Your task to perform on an android device: find snoozed emails in the gmail app Image 0: 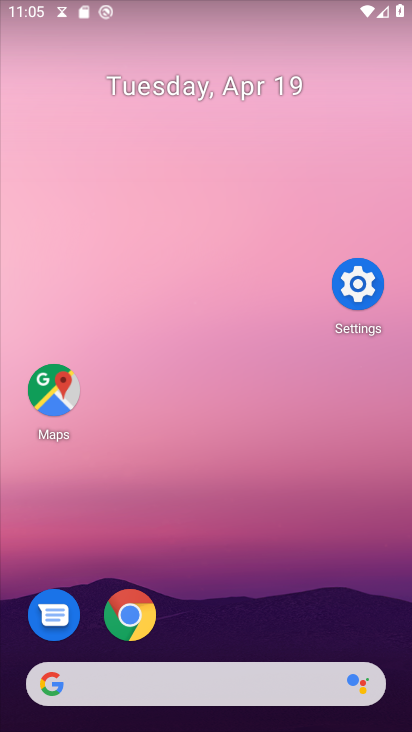
Step 0: drag from (217, 569) to (307, 156)
Your task to perform on an android device: find snoozed emails in the gmail app Image 1: 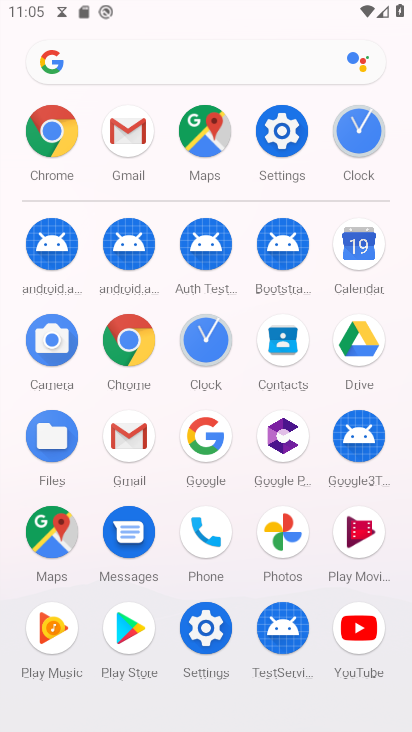
Step 1: click (121, 435)
Your task to perform on an android device: find snoozed emails in the gmail app Image 2: 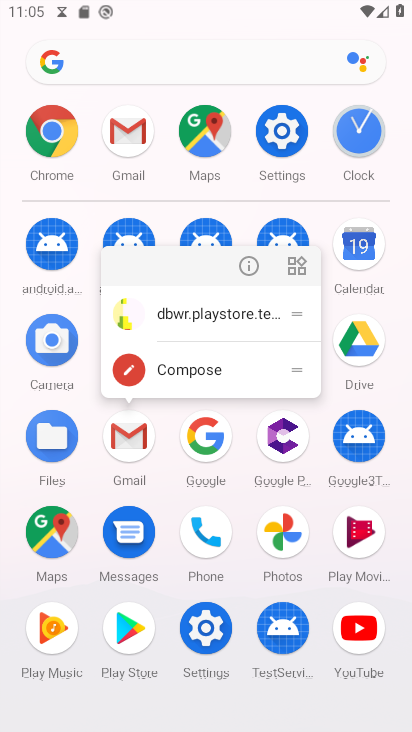
Step 2: click (241, 263)
Your task to perform on an android device: find snoozed emails in the gmail app Image 3: 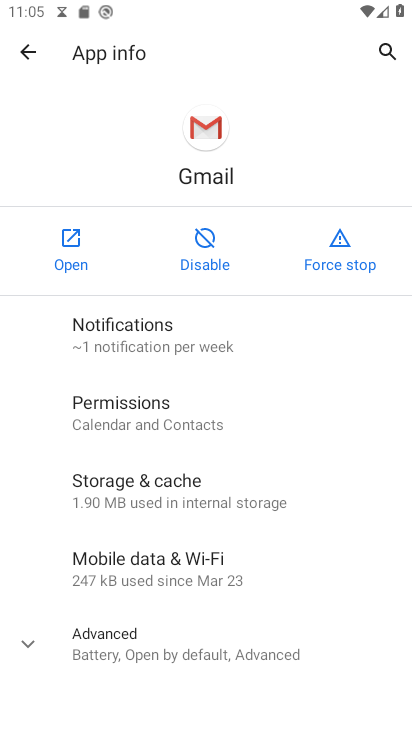
Step 3: click (76, 250)
Your task to perform on an android device: find snoozed emails in the gmail app Image 4: 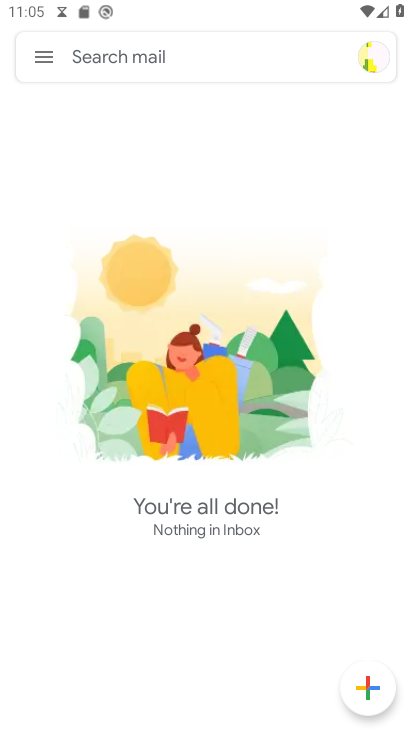
Step 4: click (41, 55)
Your task to perform on an android device: find snoozed emails in the gmail app Image 5: 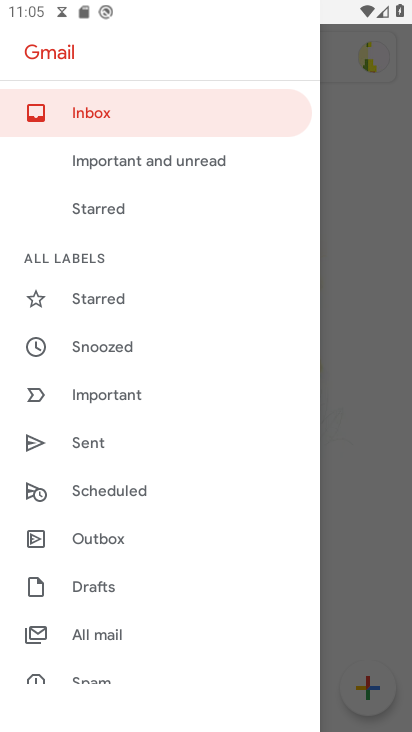
Step 5: click (125, 345)
Your task to perform on an android device: find snoozed emails in the gmail app Image 6: 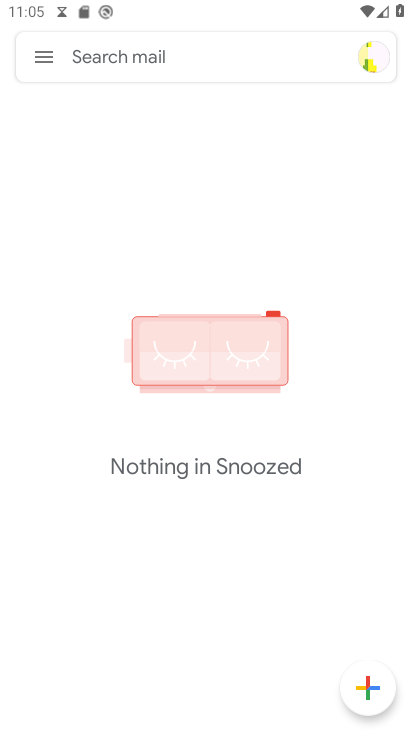
Step 6: task complete